Your task to perform on an android device: turn off location Image 0: 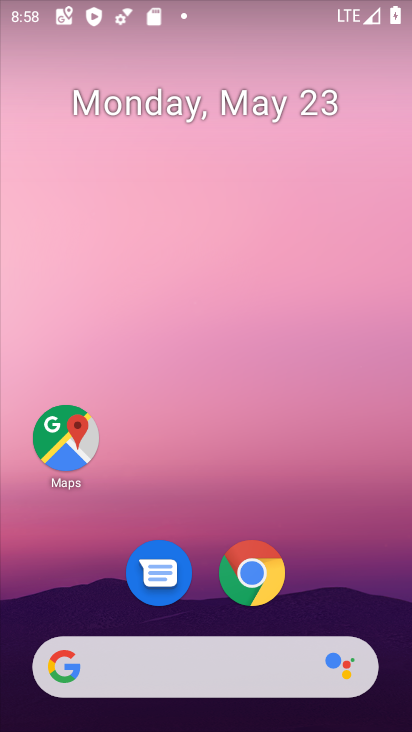
Step 0: drag from (201, 452) to (188, 59)
Your task to perform on an android device: turn off location Image 1: 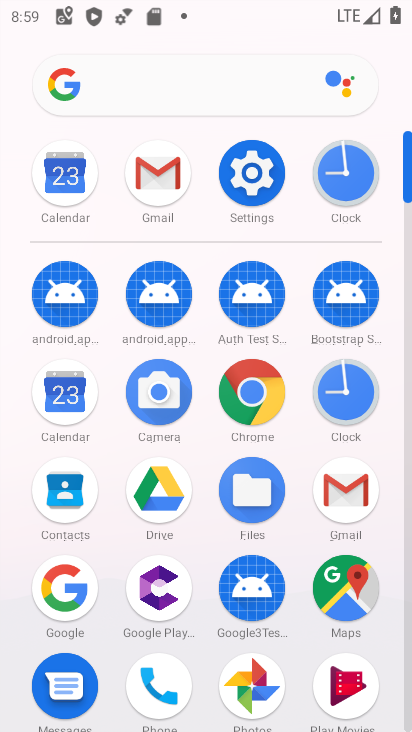
Step 1: click (234, 177)
Your task to perform on an android device: turn off location Image 2: 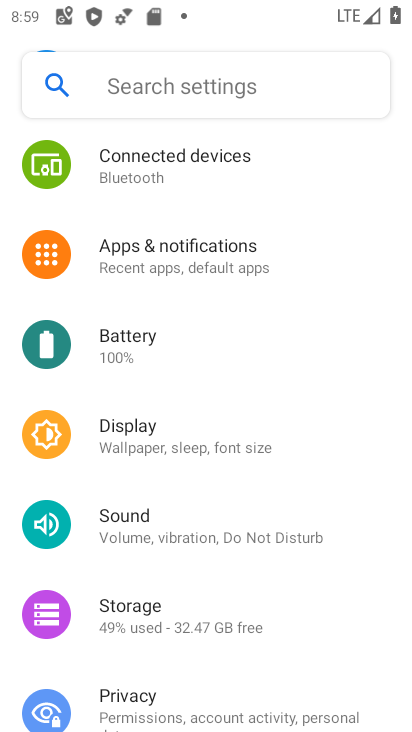
Step 2: drag from (235, 563) to (210, 189)
Your task to perform on an android device: turn off location Image 3: 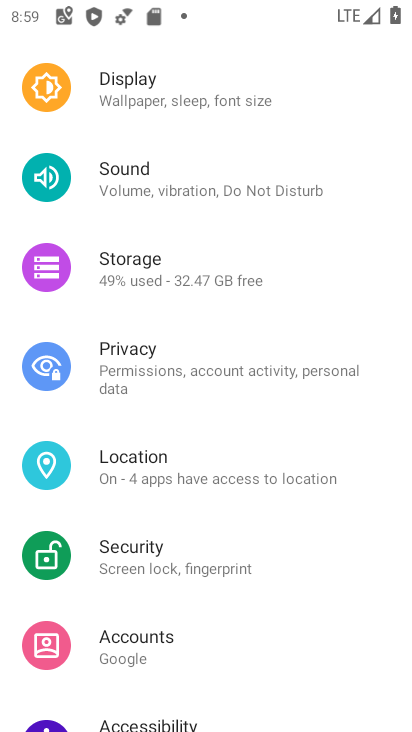
Step 3: click (206, 460)
Your task to perform on an android device: turn off location Image 4: 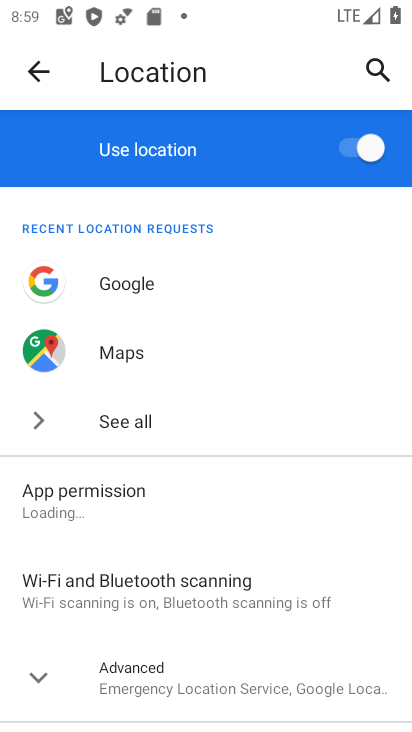
Step 4: click (346, 148)
Your task to perform on an android device: turn off location Image 5: 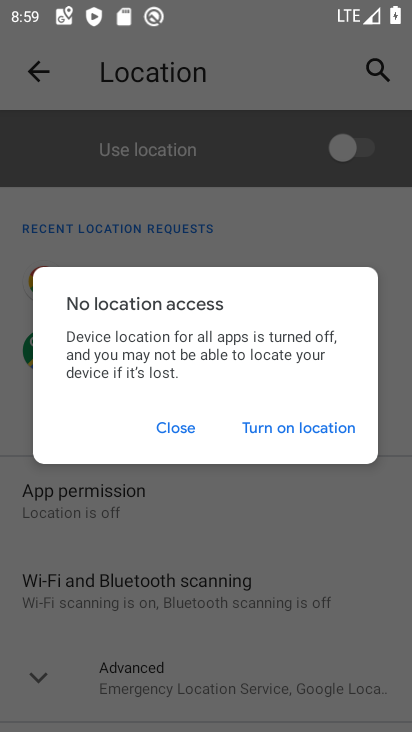
Step 5: task complete